Your task to perform on an android device: uninstall "Facebook" Image 0: 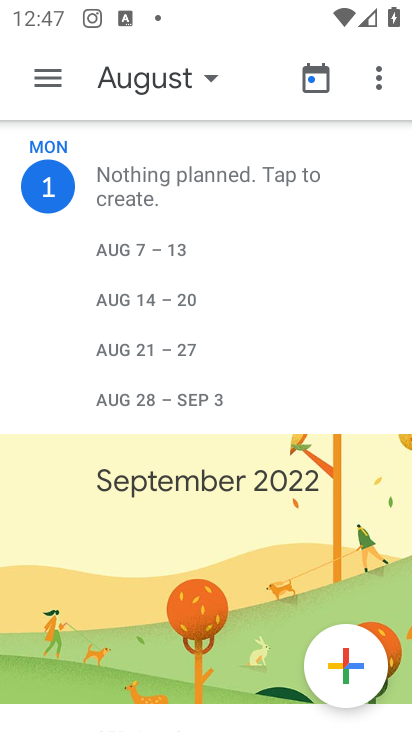
Step 0: press back button
Your task to perform on an android device: uninstall "Facebook" Image 1: 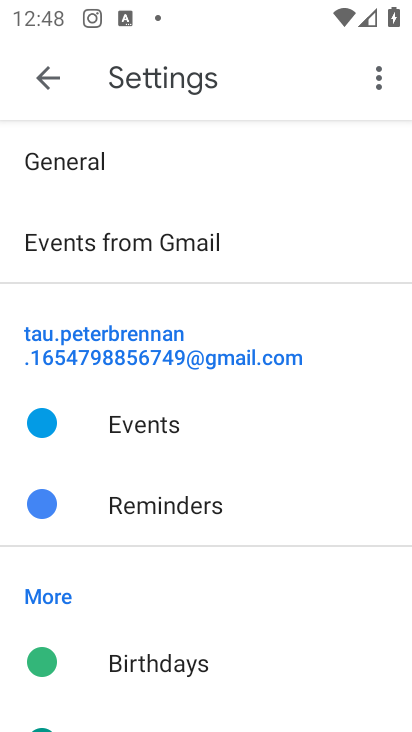
Step 1: click (29, 85)
Your task to perform on an android device: uninstall "Facebook" Image 2: 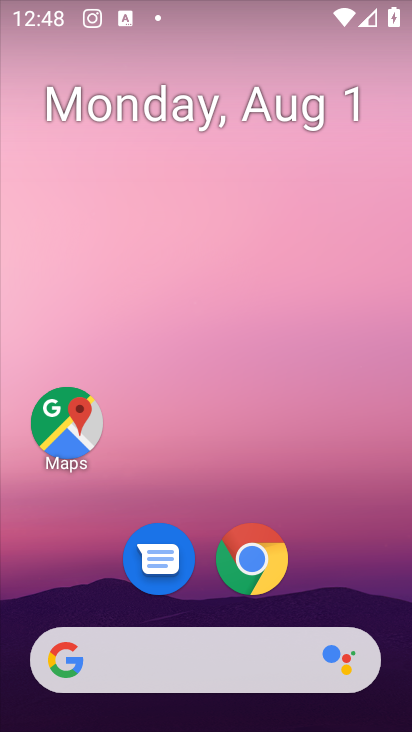
Step 2: drag from (82, 615) to (187, 57)
Your task to perform on an android device: uninstall "Facebook" Image 3: 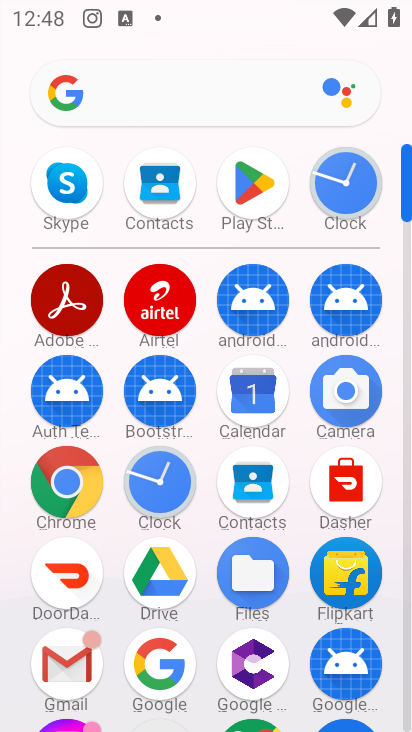
Step 3: click (233, 179)
Your task to perform on an android device: uninstall "Facebook" Image 4: 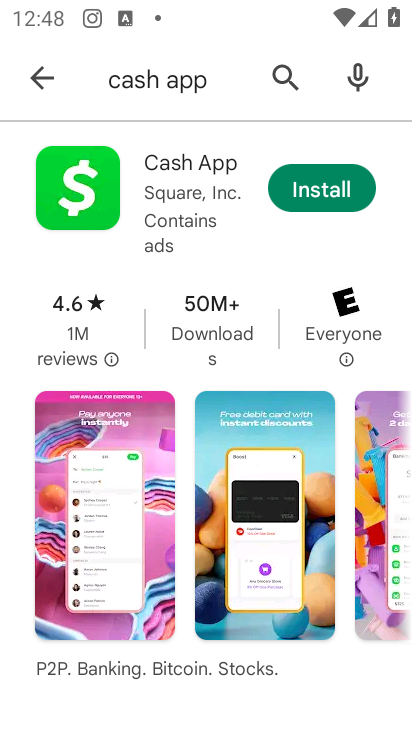
Step 4: click (276, 67)
Your task to perform on an android device: uninstall "Facebook" Image 5: 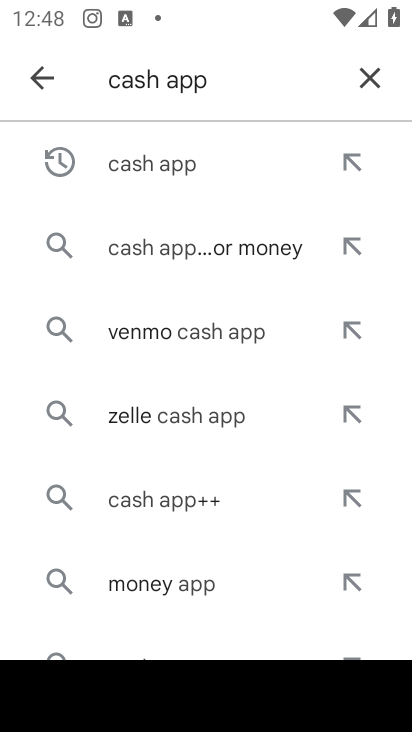
Step 5: click (352, 69)
Your task to perform on an android device: uninstall "Facebook" Image 6: 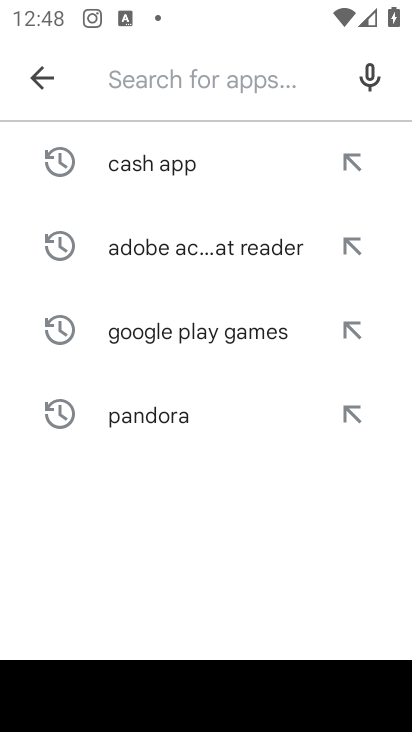
Step 6: click (174, 73)
Your task to perform on an android device: uninstall "Facebook" Image 7: 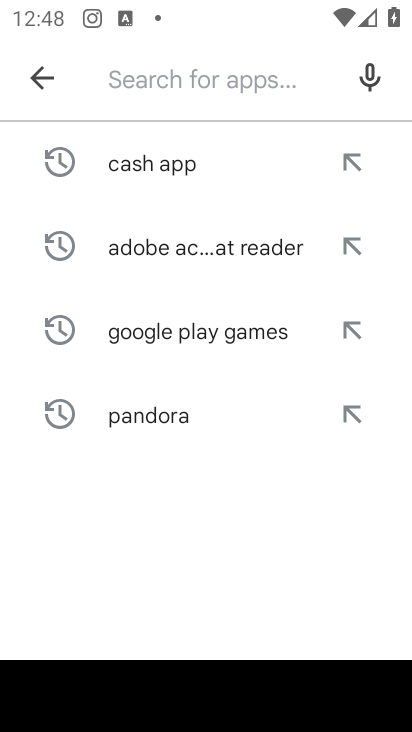
Step 7: type "facebok"
Your task to perform on an android device: uninstall "Facebook" Image 8: 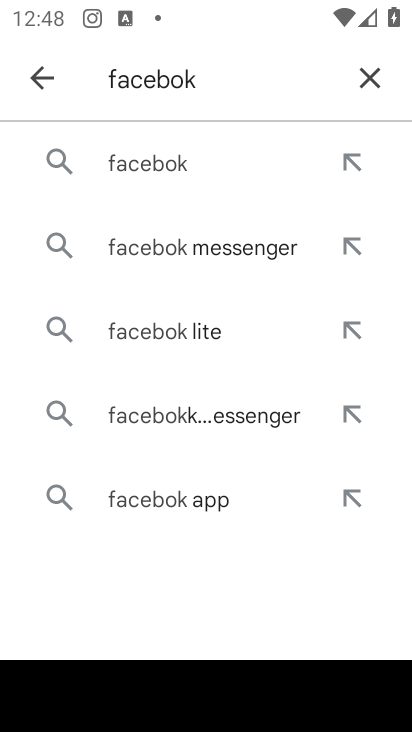
Step 8: click (371, 80)
Your task to perform on an android device: uninstall "Facebook" Image 9: 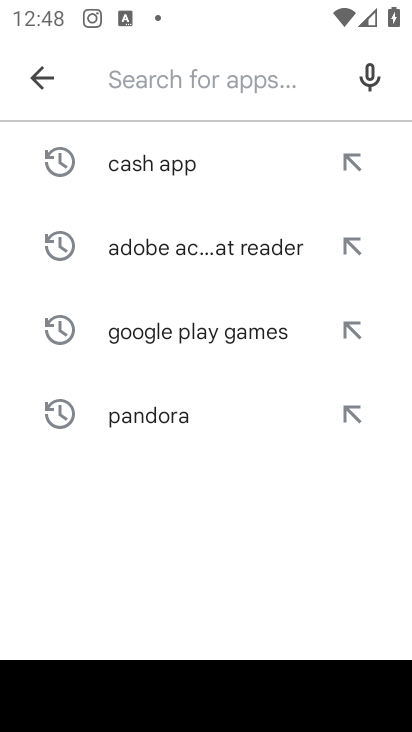
Step 9: click (178, 70)
Your task to perform on an android device: uninstall "Facebook" Image 10: 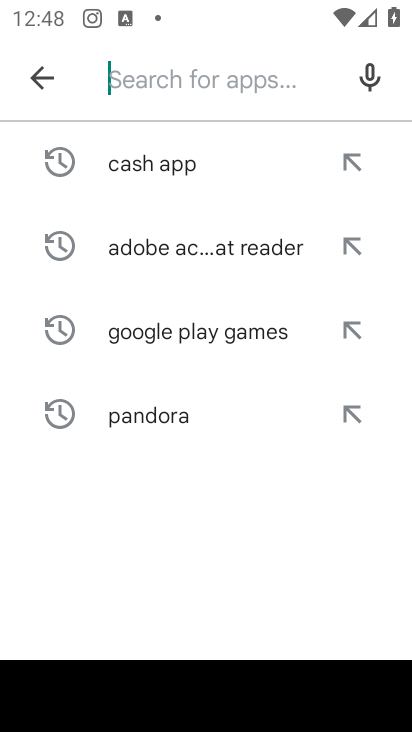
Step 10: type "facebook"
Your task to perform on an android device: uninstall "Facebook" Image 11: 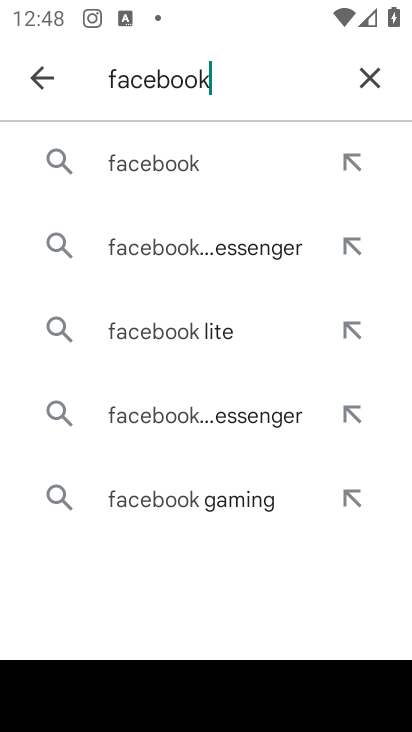
Step 11: click (211, 153)
Your task to perform on an android device: uninstall "Facebook" Image 12: 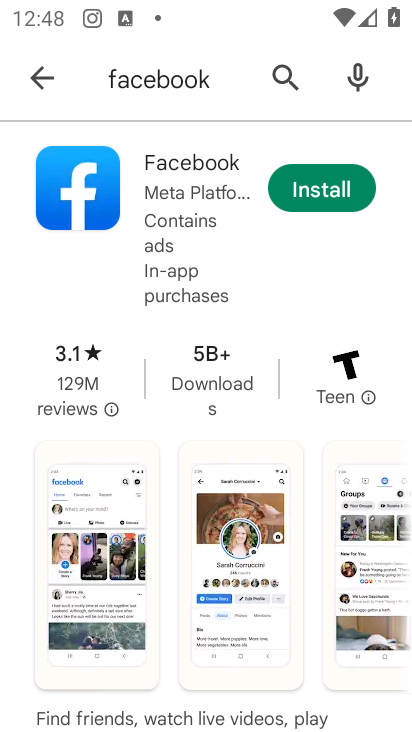
Step 12: task complete